Your task to perform on an android device: Search for sushi restaurants on Maps Image 0: 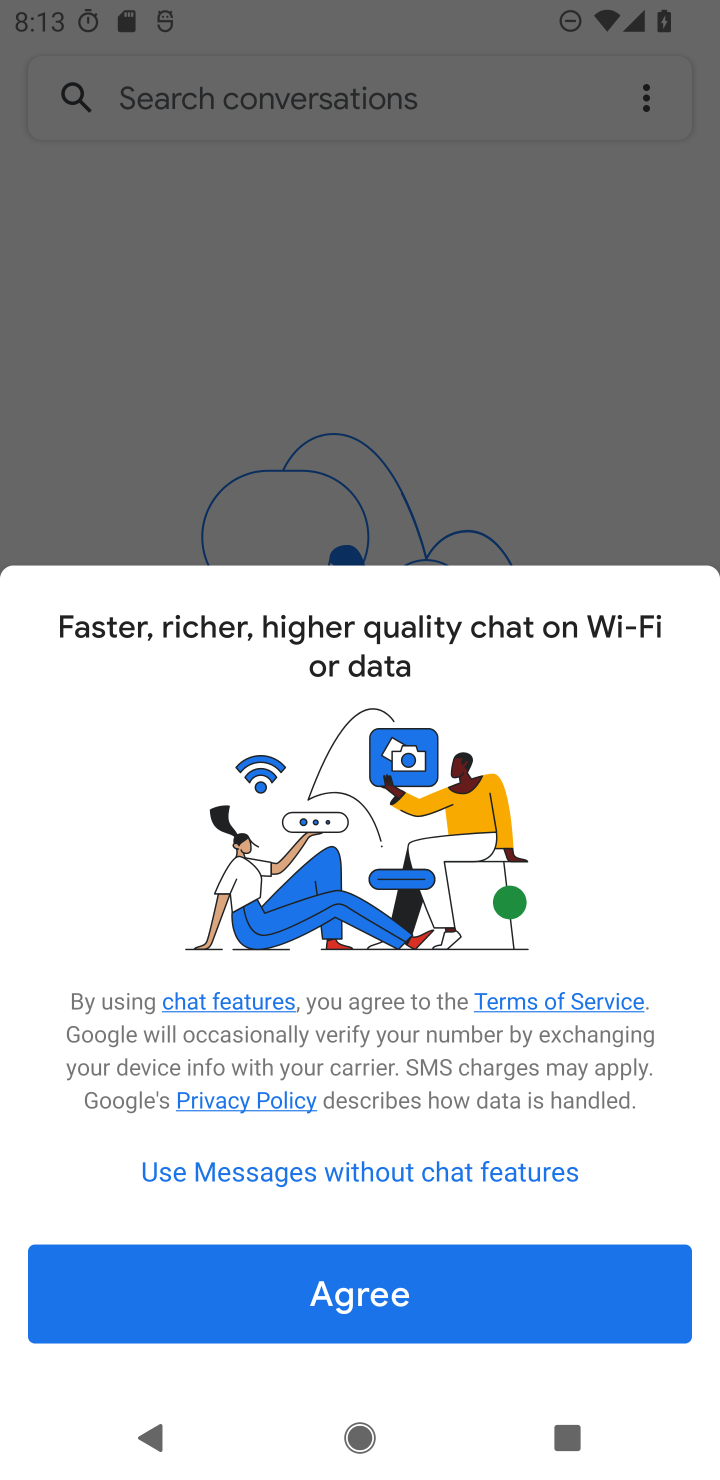
Step 0: press home button
Your task to perform on an android device: Search for sushi restaurants on Maps Image 1: 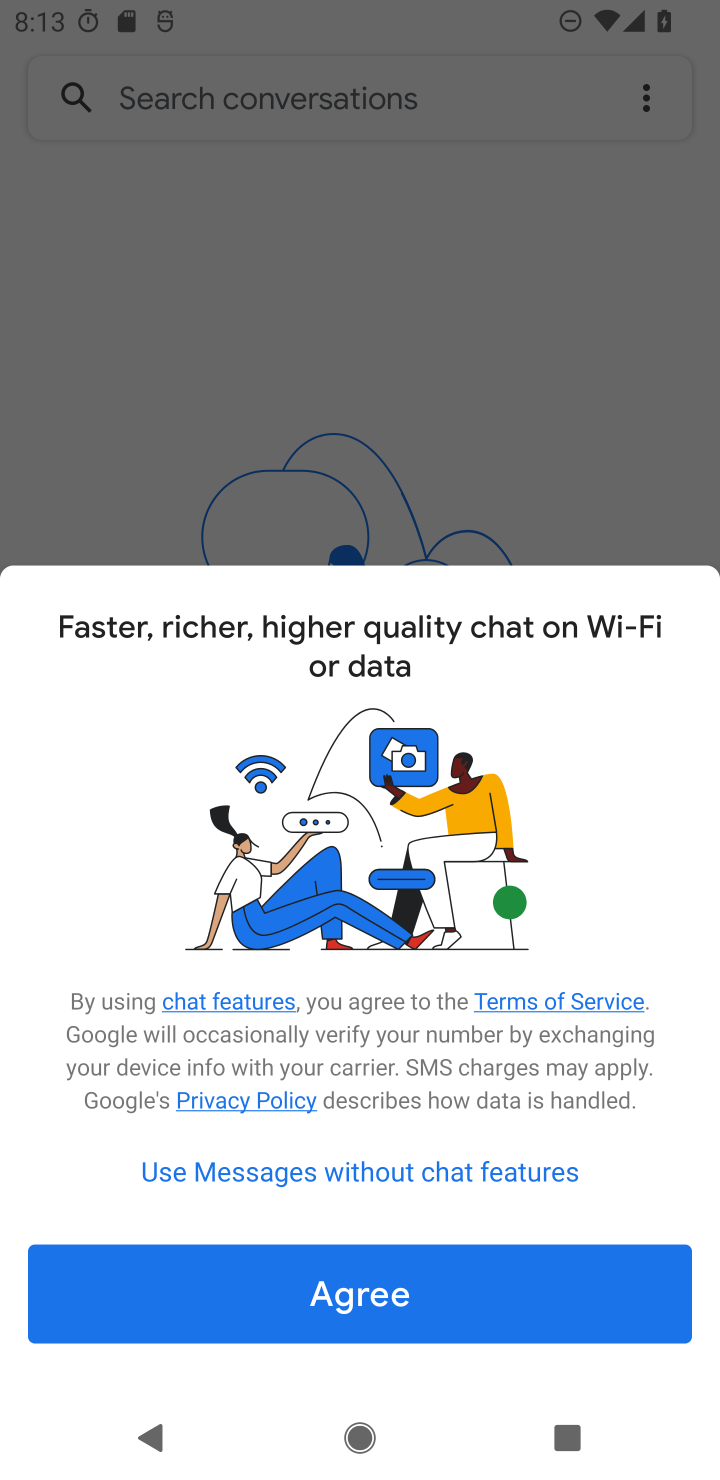
Step 1: press home button
Your task to perform on an android device: Search for sushi restaurants on Maps Image 2: 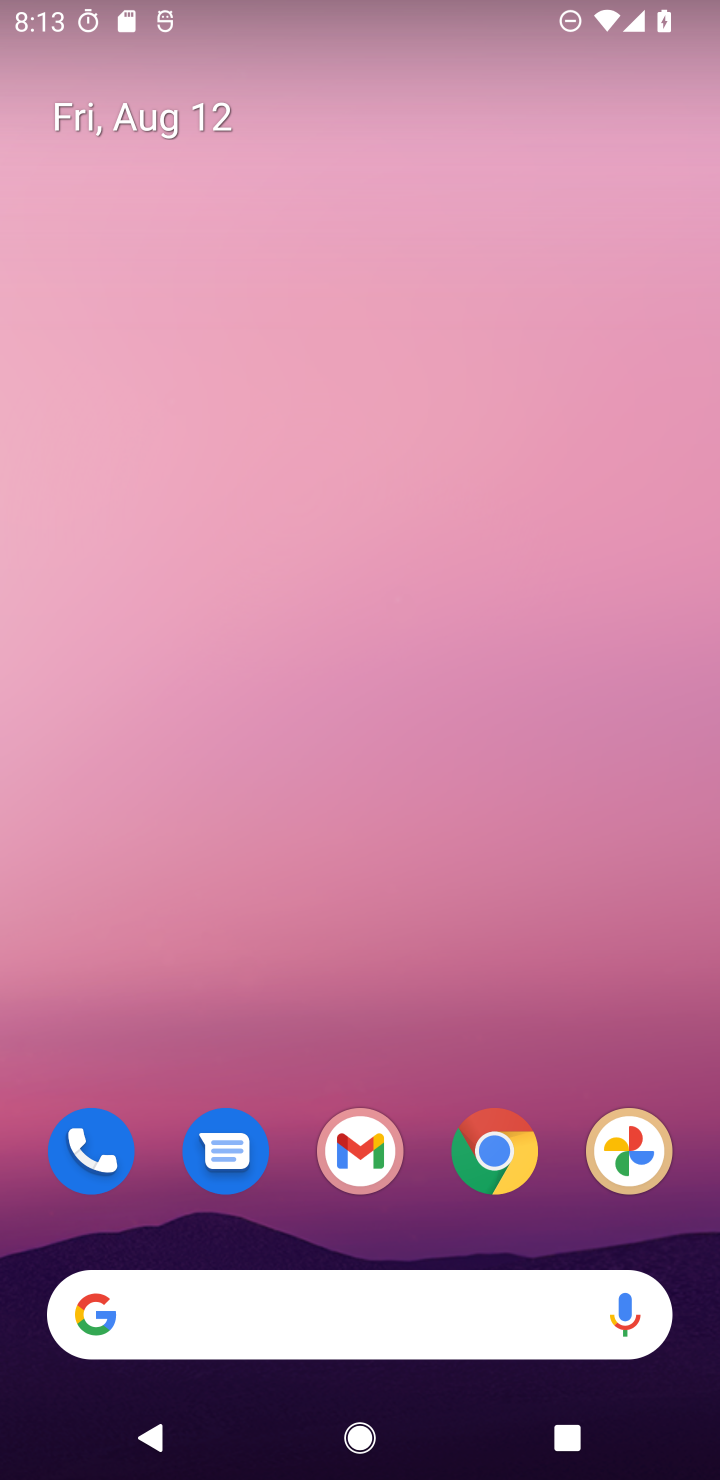
Step 2: drag from (475, 1041) to (512, 6)
Your task to perform on an android device: Search for sushi restaurants on Maps Image 3: 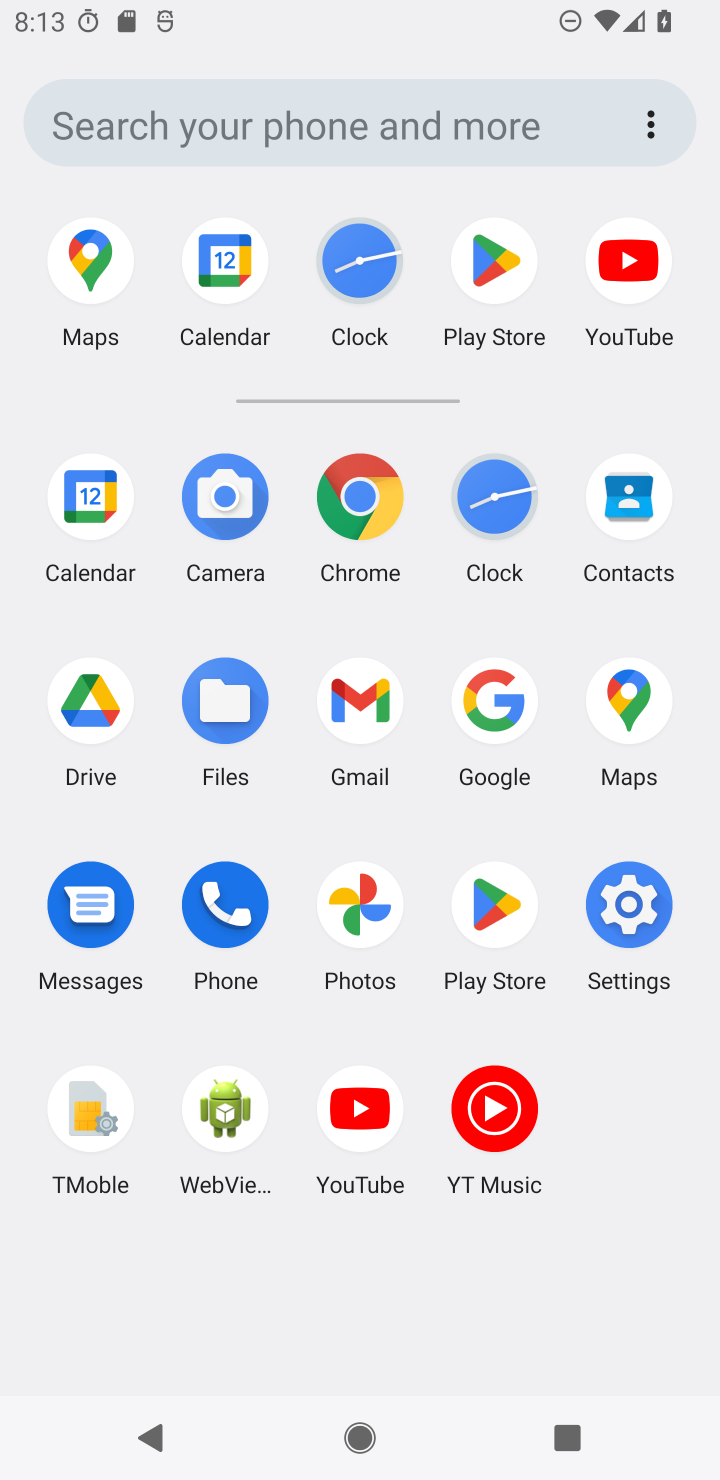
Step 3: click (637, 701)
Your task to perform on an android device: Search for sushi restaurants on Maps Image 4: 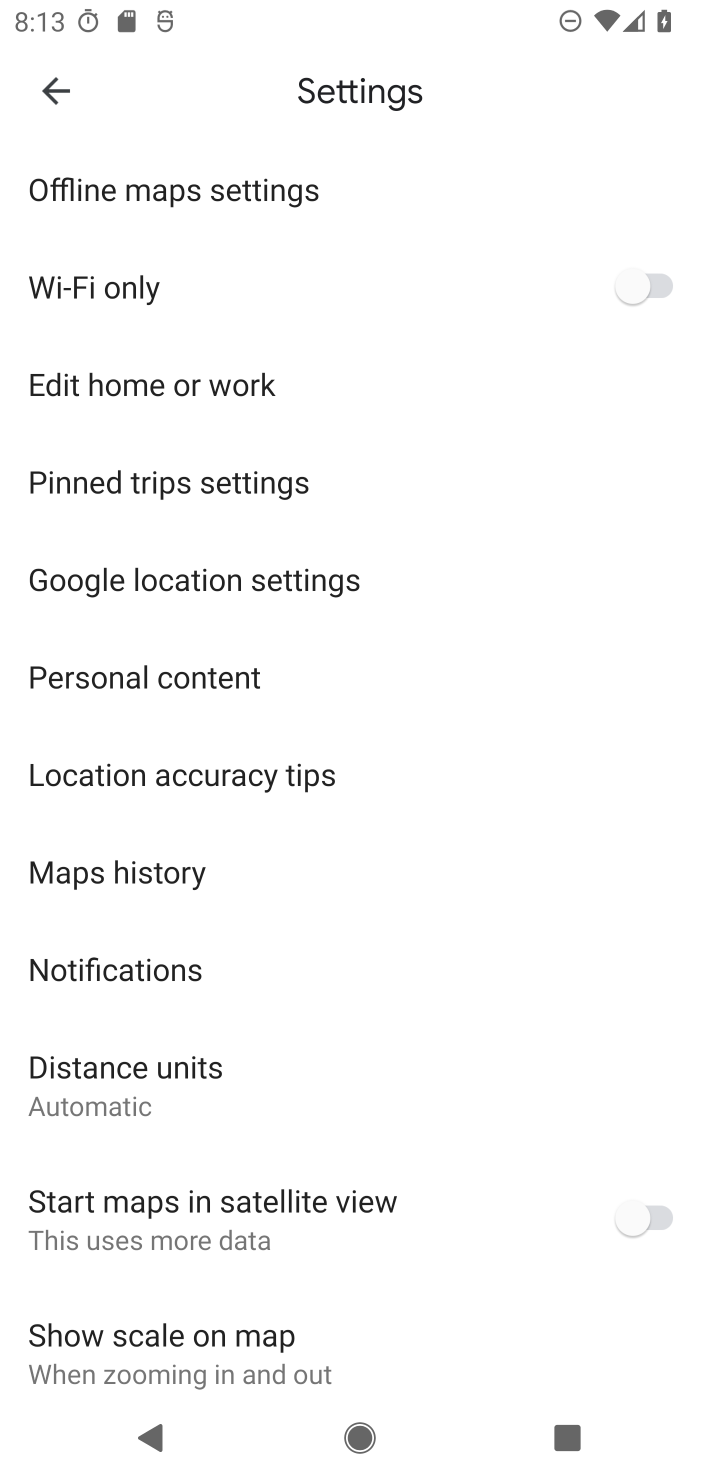
Step 4: press back button
Your task to perform on an android device: Search for sushi restaurants on Maps Image 5: 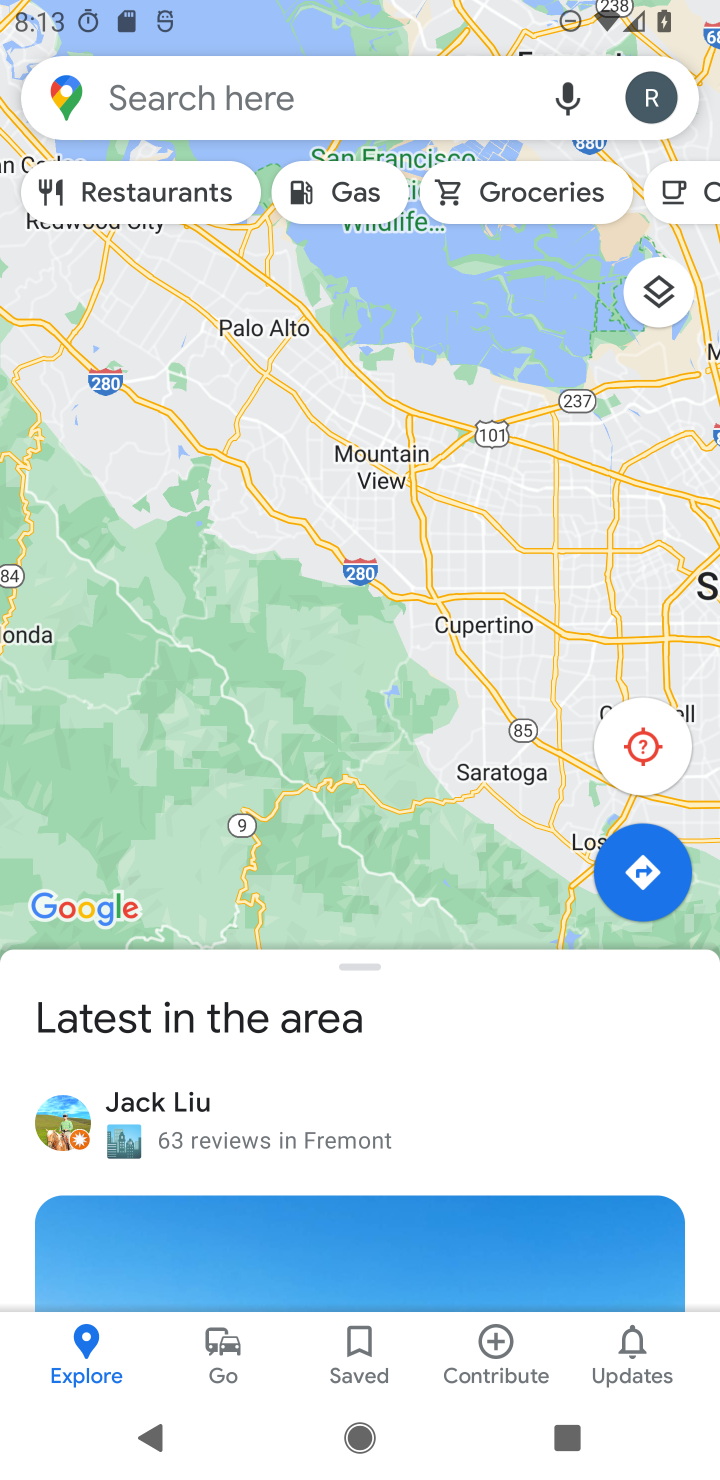
Step 5: click (393, 95)
Your task to perform on an android device: Search for sushi restaurants on Maps Image 6: 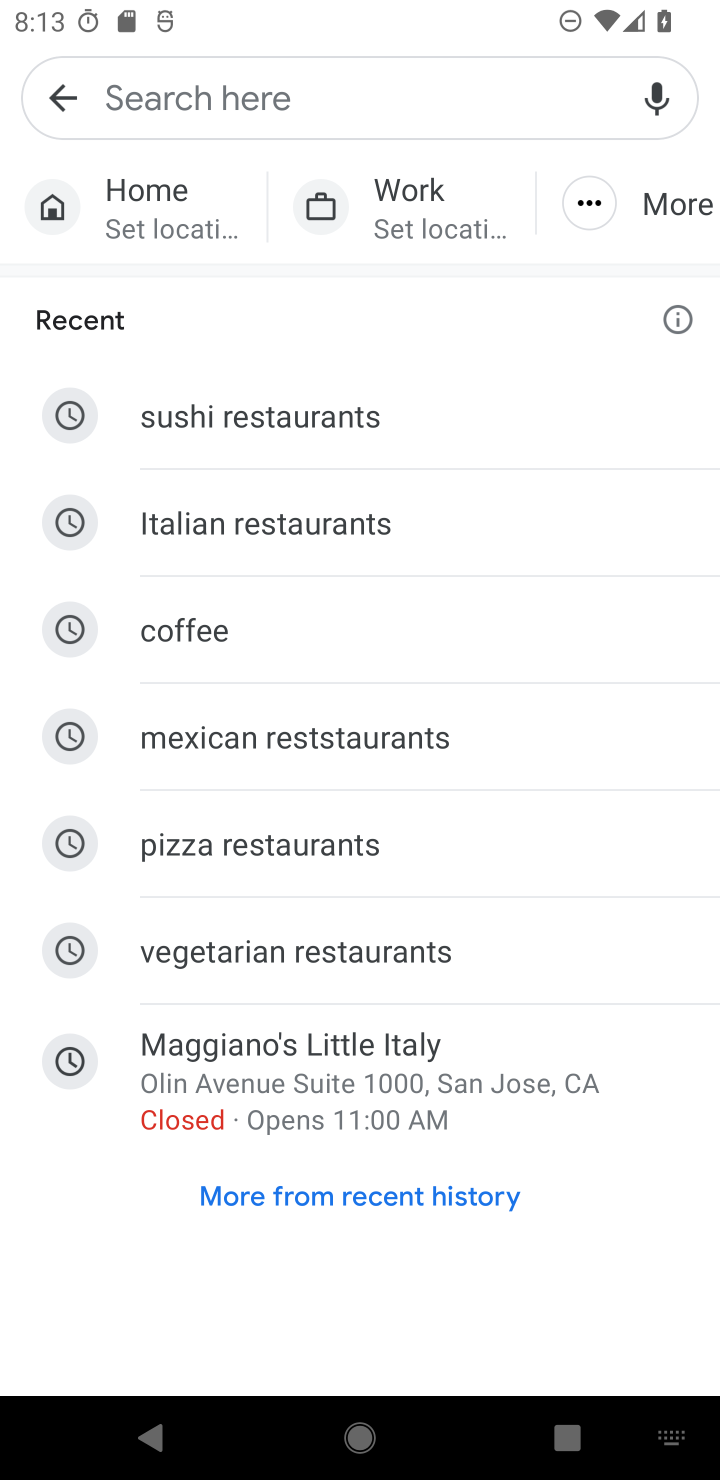
Step 6: click (373, 421)
Your task to perform on an android device: Search for sushi restaurants on Maps Image 7: 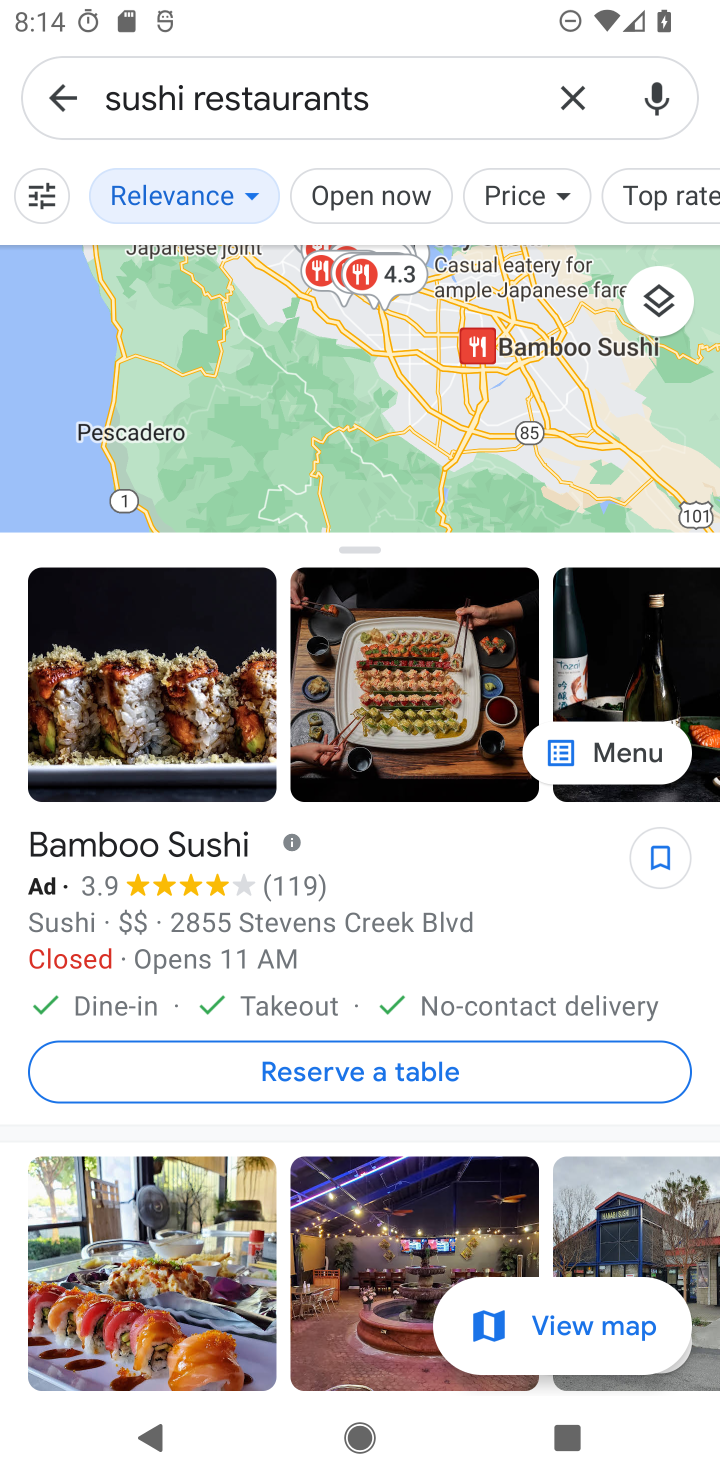
Step 7: task complete